Your task to perform on an android device: check out phone information Image 0: 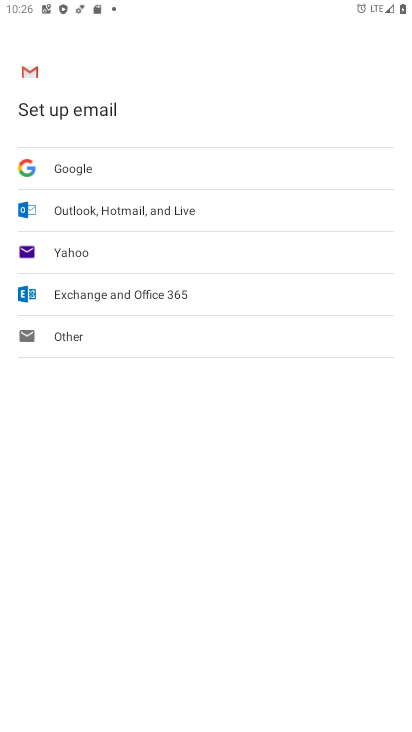
Step 0: press home button
Your task to perform on an android device: check out phone information Image 1: 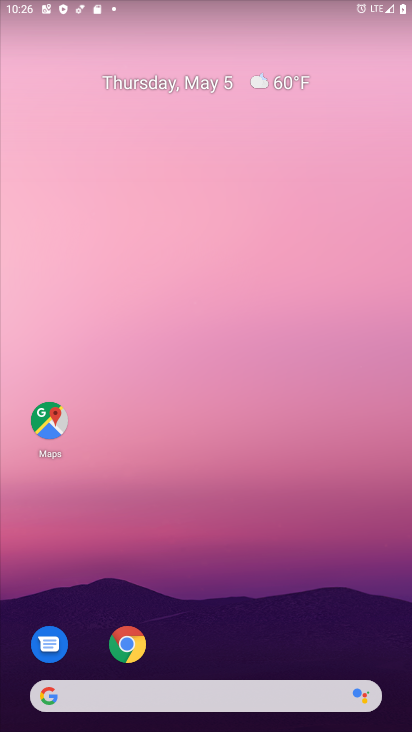
Step 1: drag from (233, 607) to (271, 131)
Your task to perform on an android device: check out phone information Image 2: 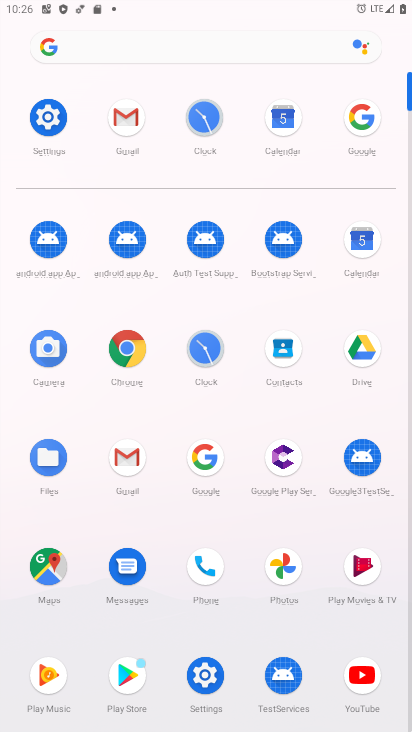
Step 2: click (198, 571)
Your task to perform on an android device: check out phone information Image 3: 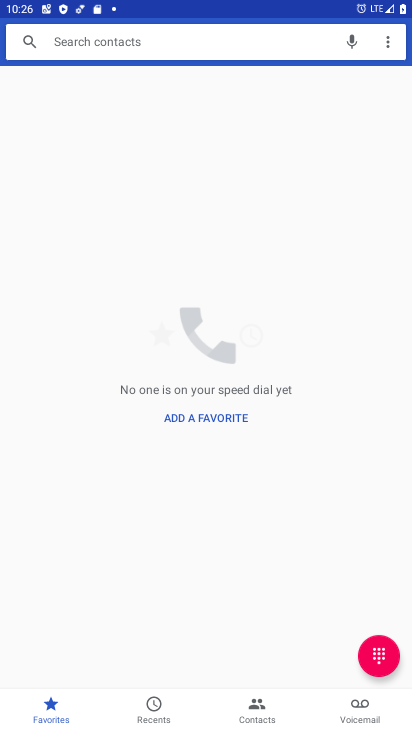
Step 3: drag from (384, 45) to (384, 95)
Your task to perform on an android device: check out phone information Image 4: 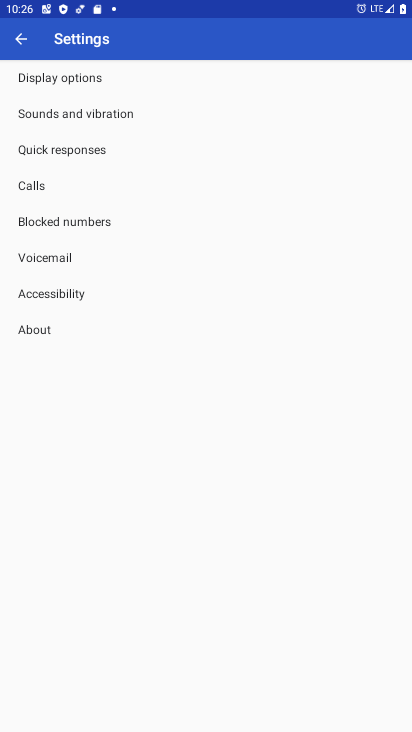
Step 4: click (30, 335)
Your task to perform on an android device: check out phone information Image 5: 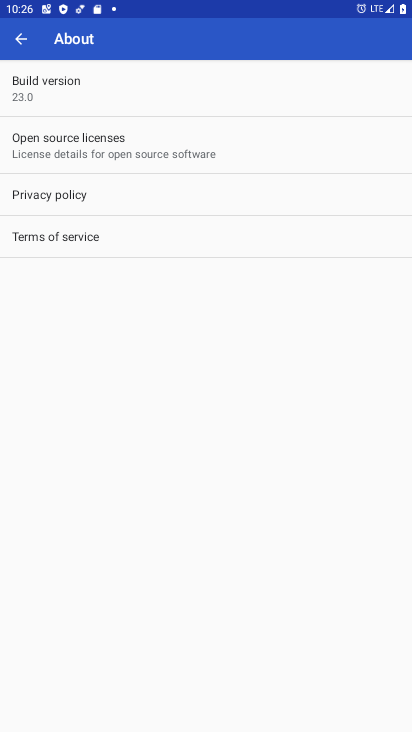
Step 5: task complete